Your task to perform on an android device: turn off priority inbox in the gmail app Image 0: 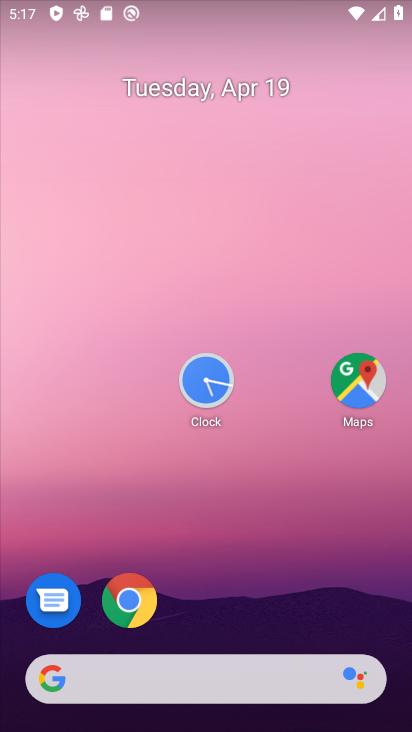
Step 0: drag from (191, 686) to (85, 312)
Your task to perform on an android device: turn off priority inbox in the gmail app Image 1: 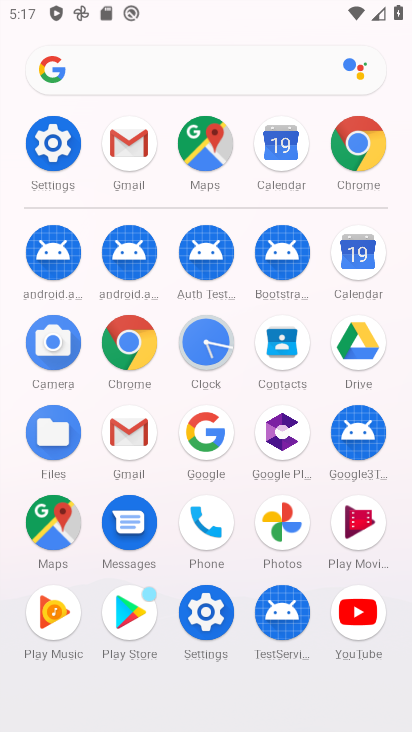
Step 1: click (136, 144)
Your task to perform on an android device: turn off priority inbox in the gmail app Image 2: 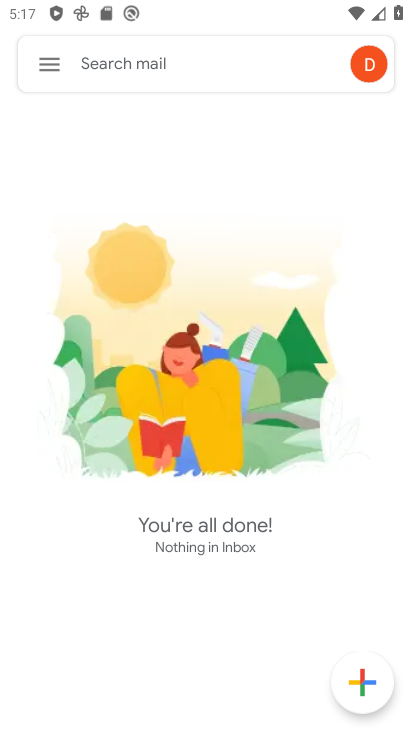
Step 2: click (54, 58)
Your task to perform on an android device: turn off priority inbox in the gmail app Image 3: 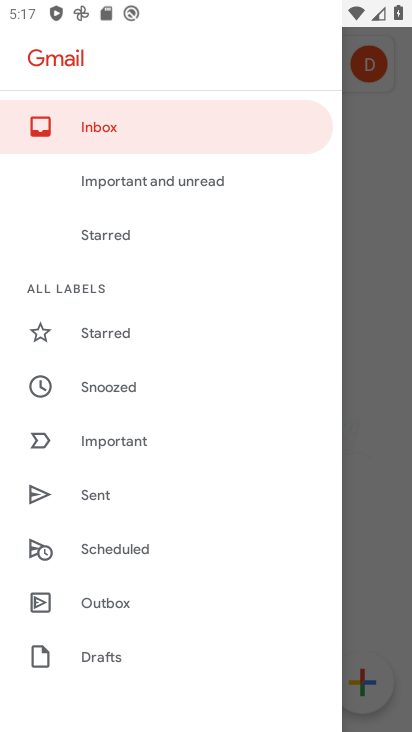
Step 3: drag from (193, 704) to (197, 387)
Your task to perform on an android device: turn off priority inbox in the gmail app Image 4: 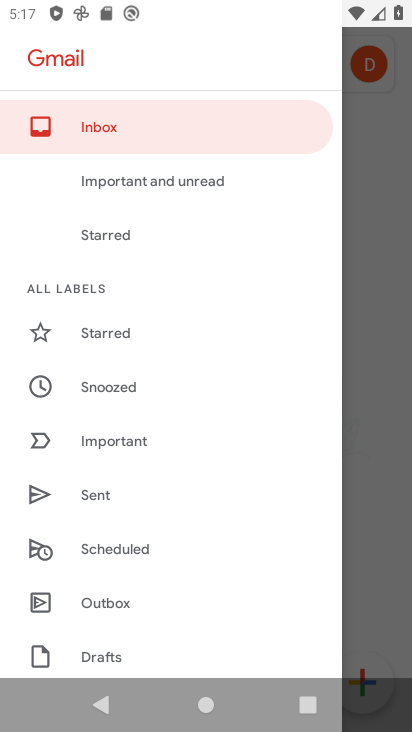
Step 4: drag from (226, 501) to (187, 319)
Your task to perform on an android device: turn off priority inbox in the gmail app Image 5: 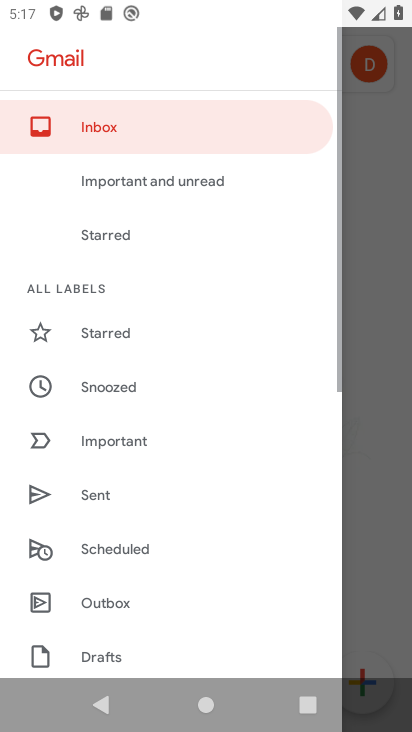
Step 5: drag from (195, 560) to (159, 338)
Your task to perform on an android device: turn off priority inbox in the gmail app Image 6: 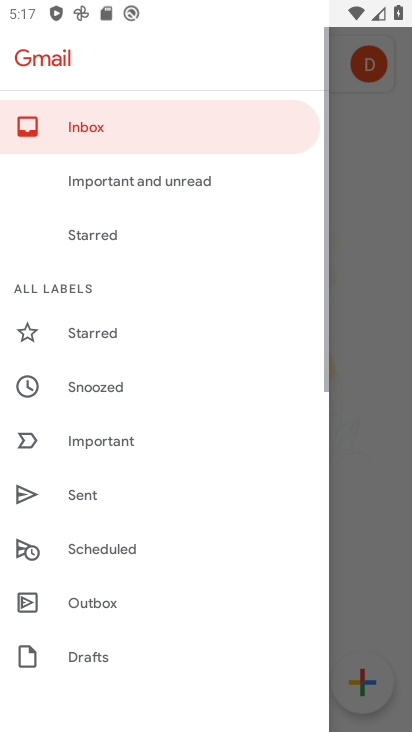
Step 6: drag from (196, 598) to (171, 235)
Your task to perform on an android device: turn off priority inbox in the gmail app Image 7: 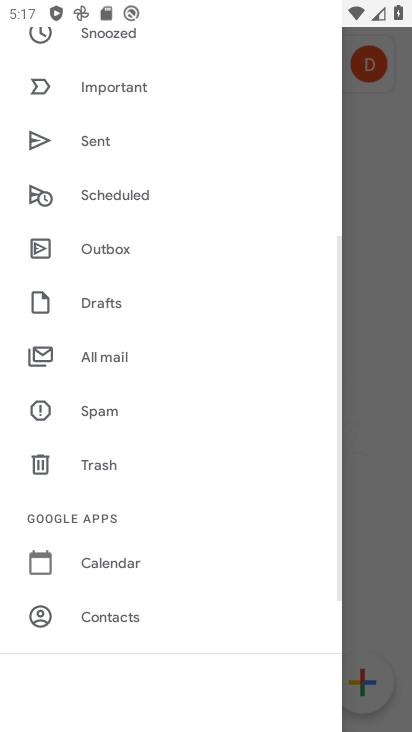
Step 7: drag from (256, 401) to (247, 234)
Your task to perform on an android device: turn off priority inbox in the gmail app Image 8: 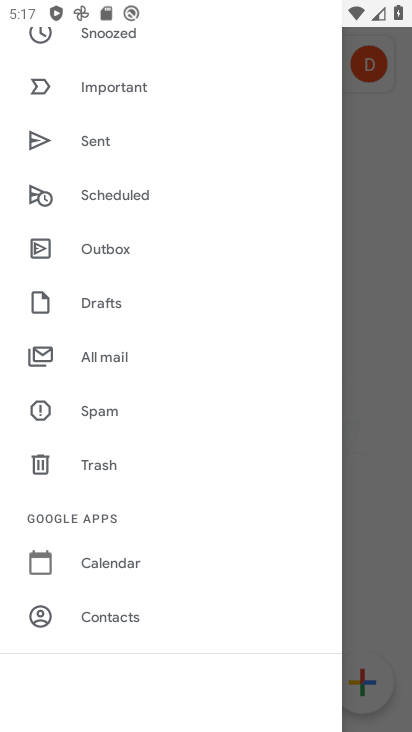
Step 8: drag from (171, 532) to (236, 176)
Your task to perform on an android device: turn off priority inbox in the gmail app Image 9: 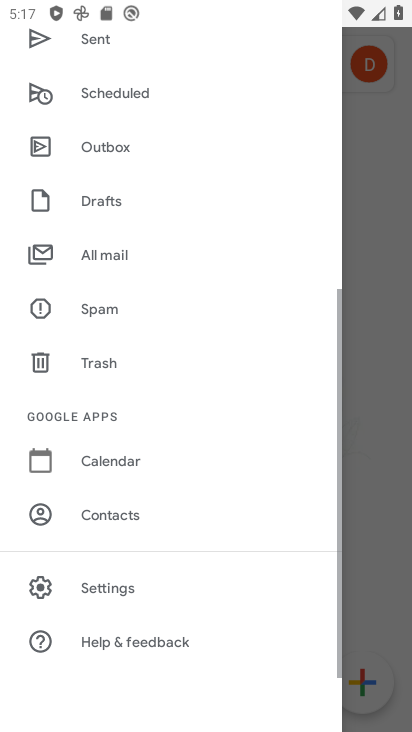
Step 9: drag from (268, 516) to (249, 160)
Your task to perform on an android device: turn off priority inbox in the gmail app Image 10: 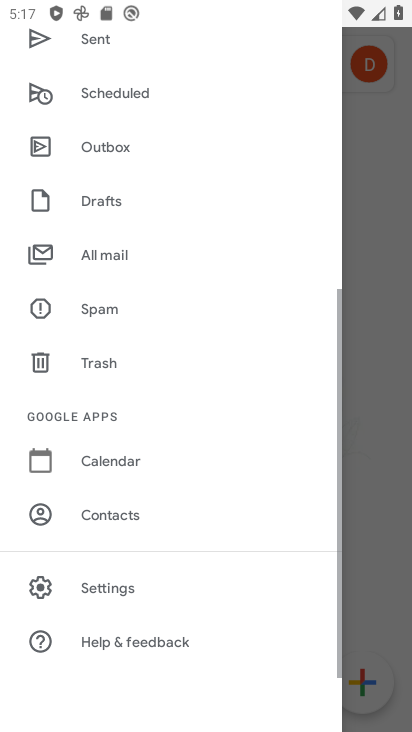
Step 10: drag from (165, 393) to (185, 1)
Your task to perform on an android device: turn off priority inbox in the gmail app Image 11: 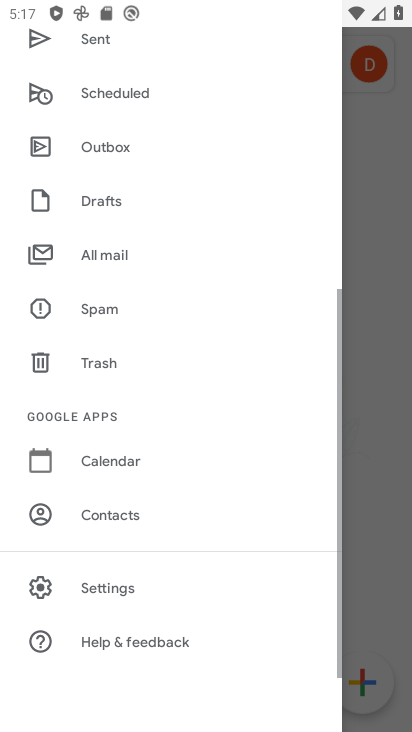
Step 11: click (100, 586)
Your task to perform on an android device: turn off priority inbox in the gmail app Image 12: 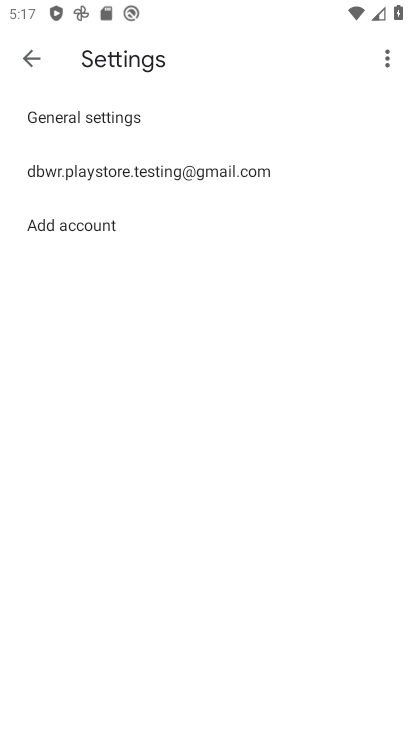
Step 12: click (153, 173)
Your task to perform on an android device: turn off priority inbox in the gmail app Image 13: 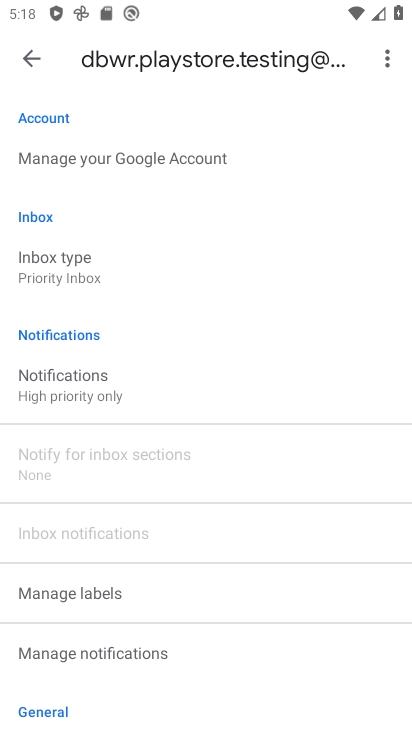
Step 13: click (48, 272)
Your task to perform on an android device: turn off priority inbox in the gmail app Image 14: 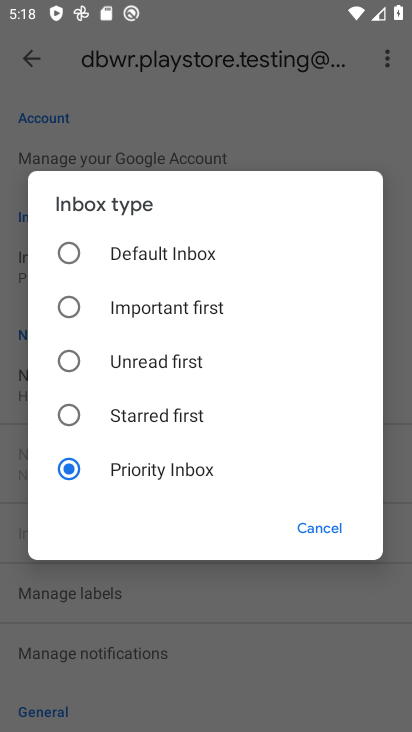
Step 14: click (66, 415)
Your task to perform on an android device: turn off priority inbox in the gmail app Image 15: 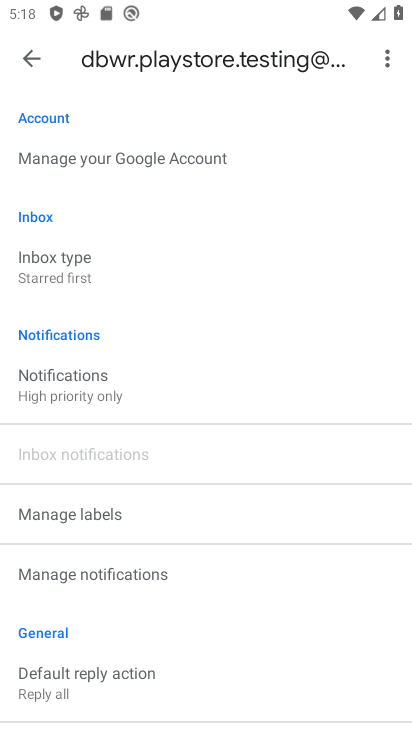
Step 15: task complete